Your task to perform on an android device: allow cookies in the chrome app Image 0: 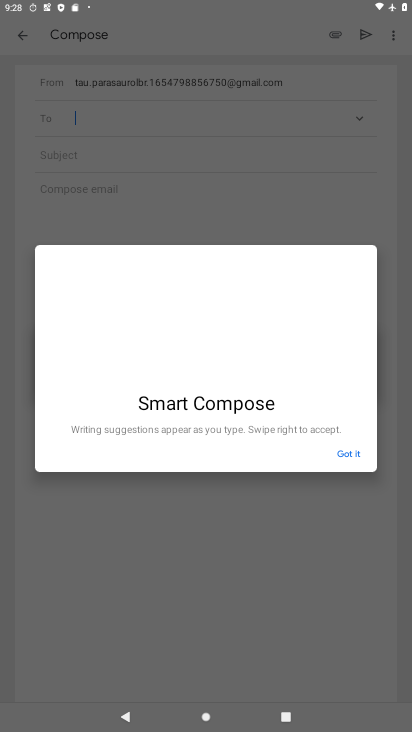
Step 0: press home button
Your task to perform on an android device: allow cookies in the chrome app Image 1: 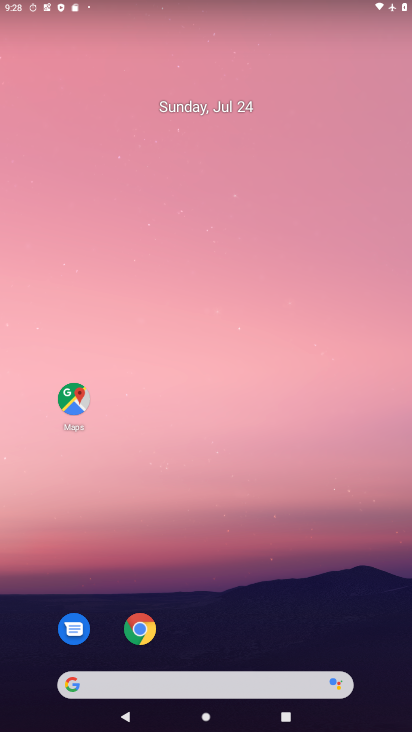
Step 1: drag from (233, 669) to (341, 8)
Your task to perform on an android device: allow cookies in the chrome app Image 2: 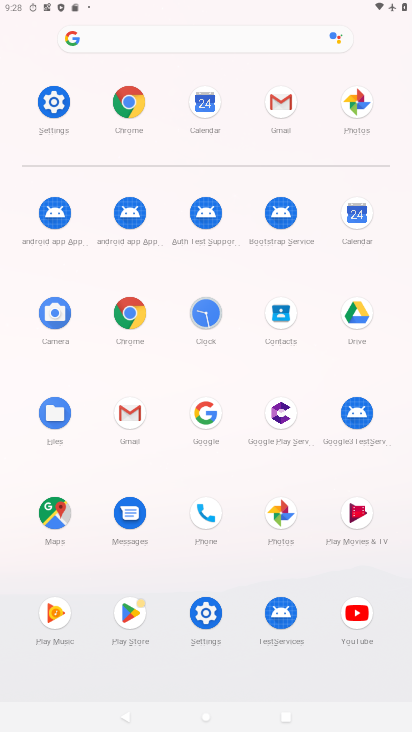
Step 2: click (132, 334)
Your task to perform on an android device: allow cookies in the chrome app Image 3: 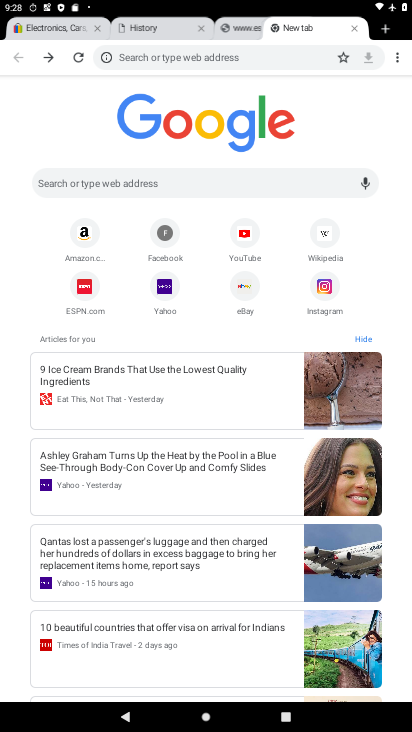
Step 3: click (401, 62)
Your task to perform on an android device: allow cookies in the chrome app Image 4: 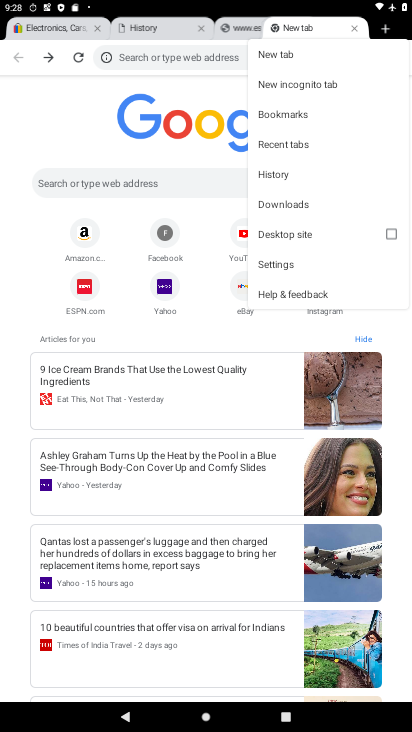
Step 4: click (269, 268)
Your task to perform on an android device: allow cookies in the chrome app Image 5: 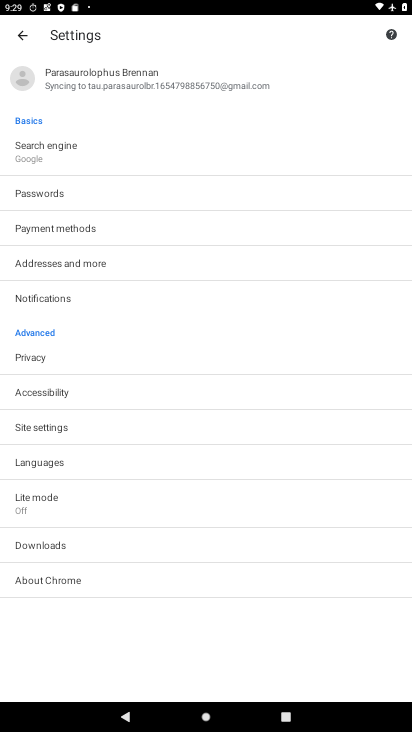
Step 5: click (38, 419)
Your task to perform on an android device: allow cookies in the chrome app Image 6: 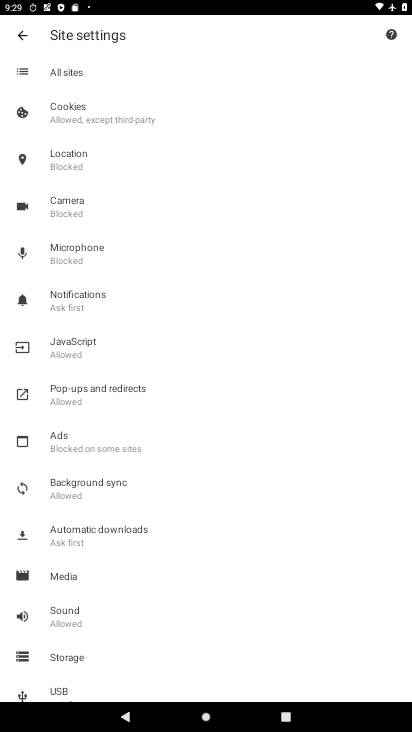
Step 6: click (84, 104)
Your task to perform on an android device: allow cookies in the chrome app Image 7: 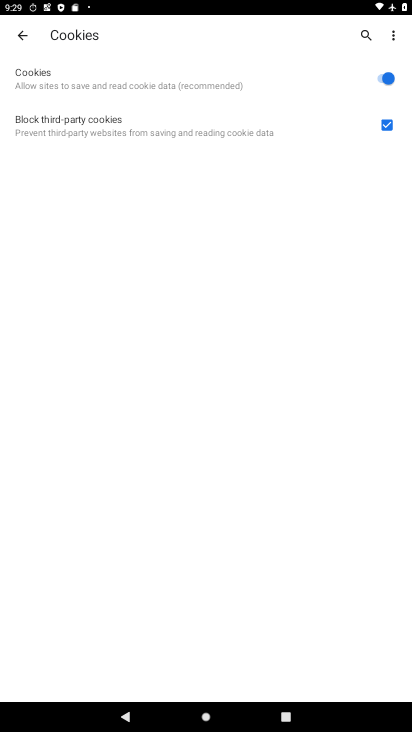
Step 7: task complete